Your task to perform on an android device: What's on my calendar today? Image 0: 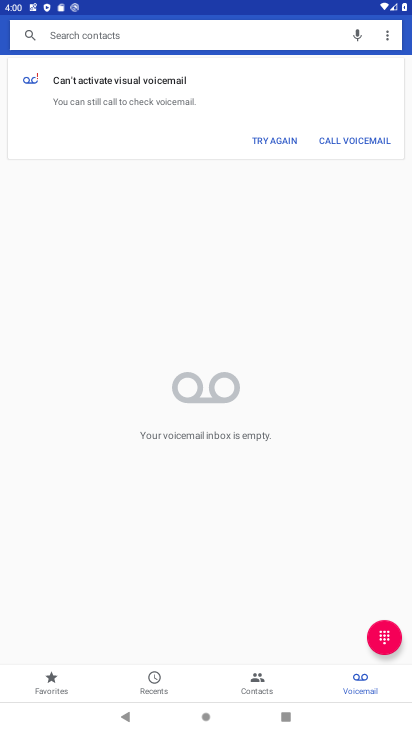
Step 0: press home button
Your task to perform on an android device: What's on my calendar today? Image 1: 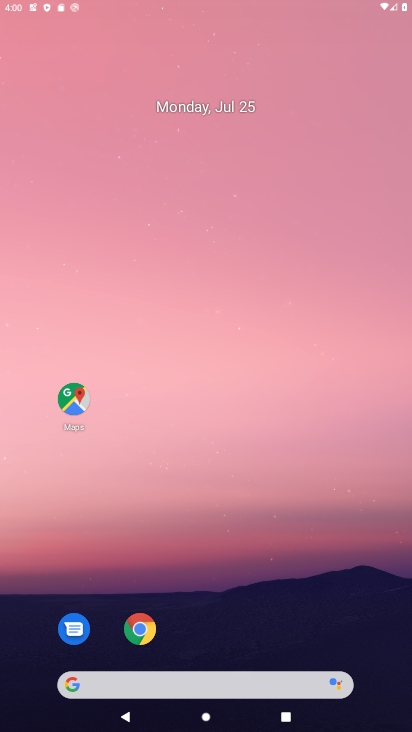
Step 1: drag from (177, 634) to (269, 46)
Your task to perform on an android device: What's on my calendar today? Image 2: 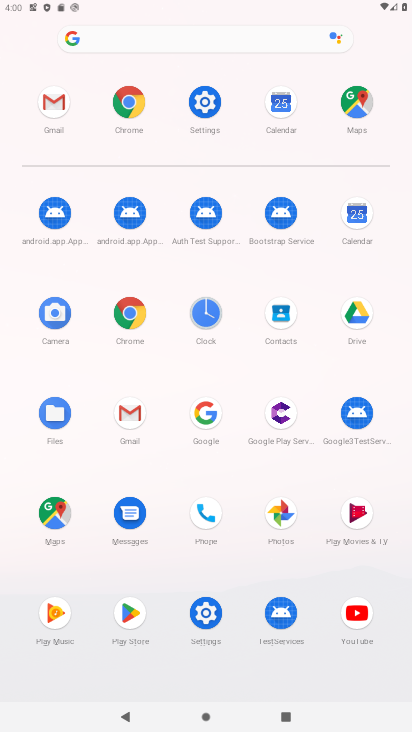
Step 2: click (361, 220)
Your task to perform on an android device: What's on my calendar today? Image 3: 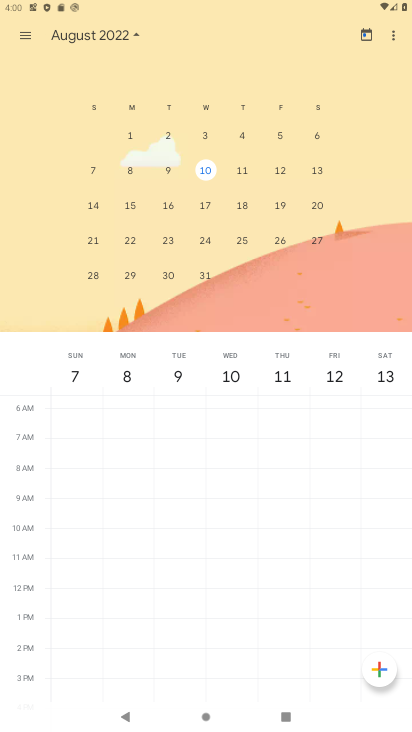
Step 3: drag from (62, 222) to (395, 242)
Your task to perform on an android device: What's on my calendar today? Image 4: 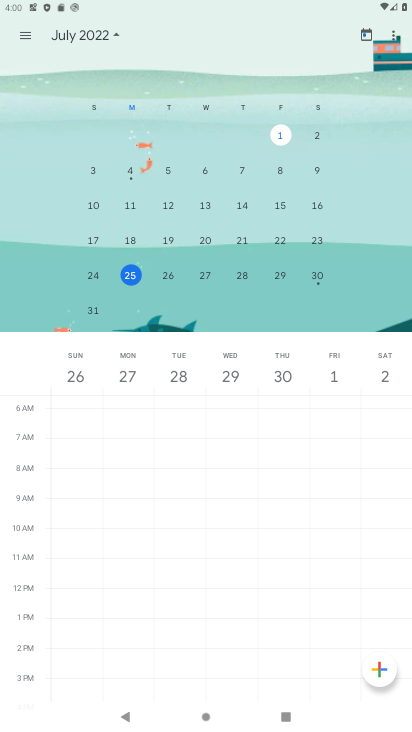
Step 4: click (134, 279)
Your task to perform on an android device: What's on my calendar today? Image 5: 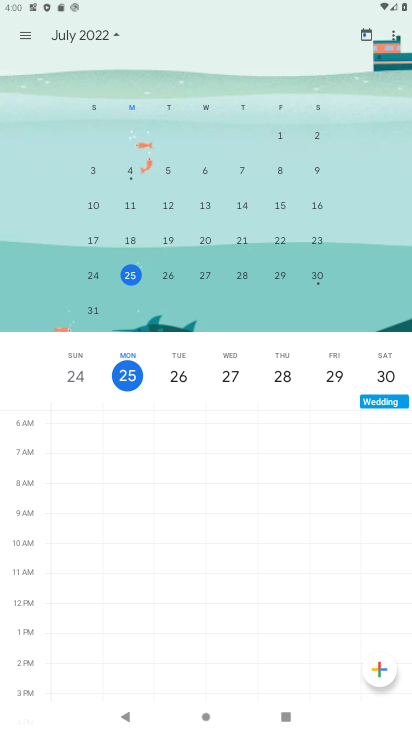
Step 5: task complete